Your task to perform on an android device: Go to settings Image 0: 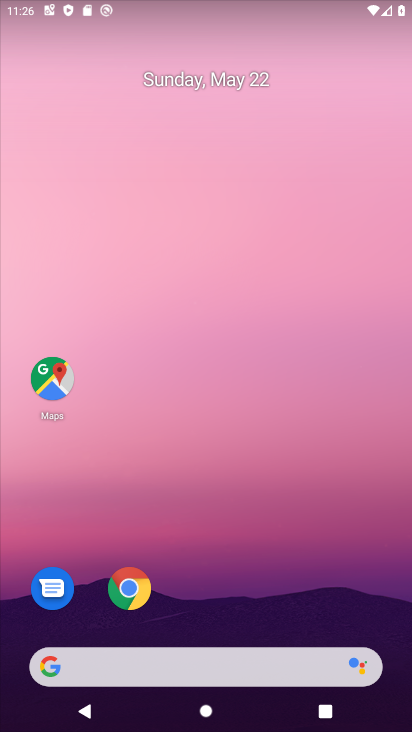
Step 0: press home button
Your task to perform on an android device: Go to settings Image 1: 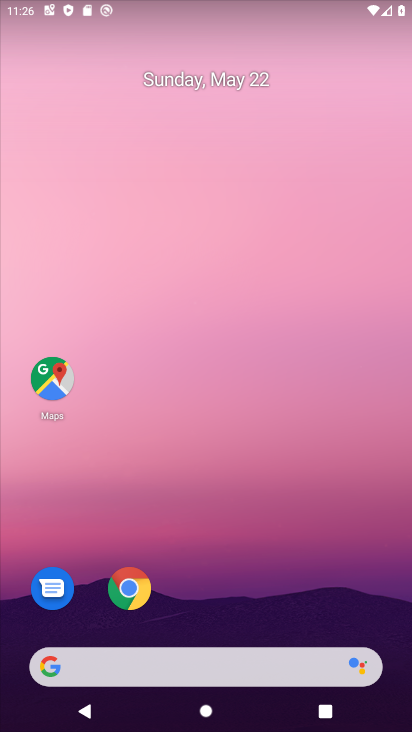
Step 1: drag from (249, 693) to (277, 316)
Your task to perform on an android device: Go to settings Image 2: 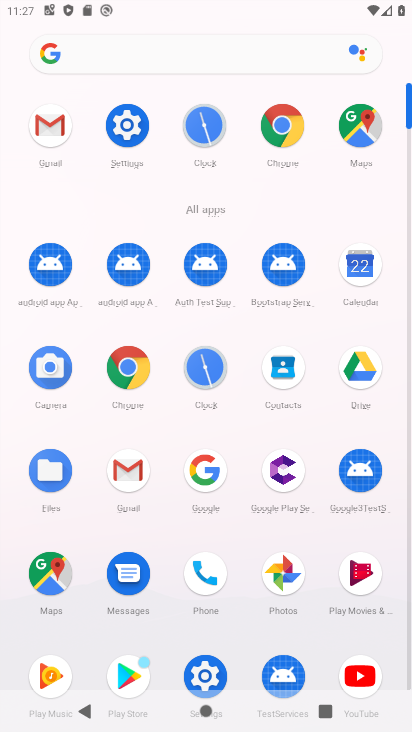
Step 2: click (131, 130)
Your task to perform on an android device: Go to settings Image 3: 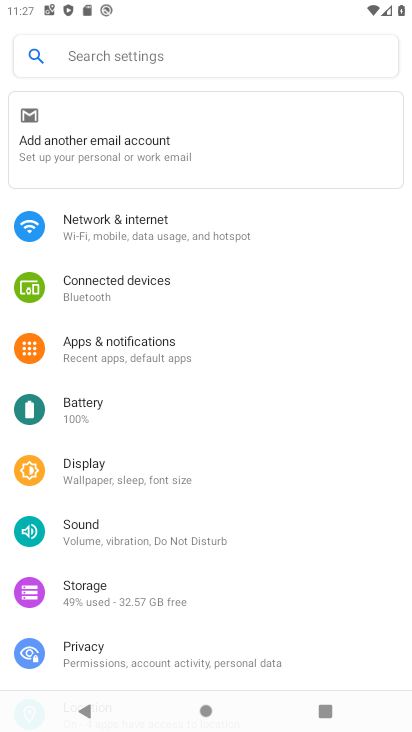
Step 3: task complete